Your task to perform on an android device: Go to eBay Image 0: 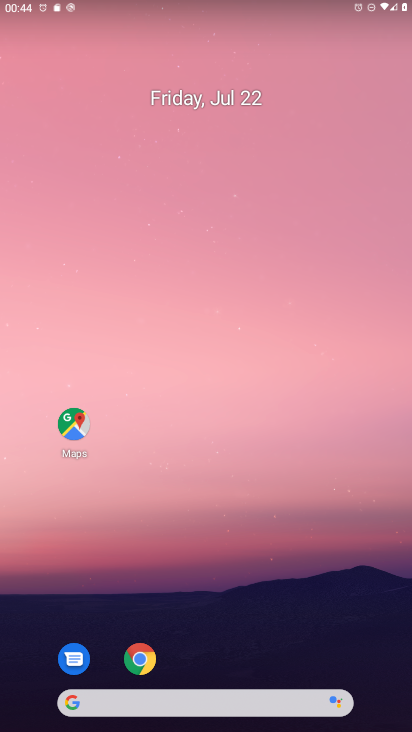
Step 0: click (140, 659)
Your task to perform on an android device: Go to eBay Image 1: 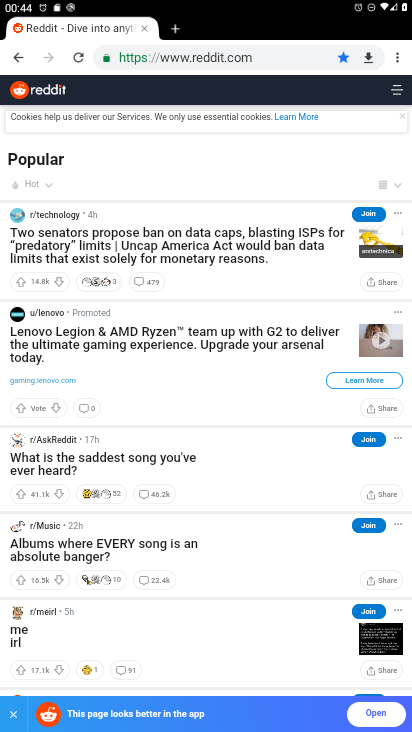
Step 1: click (287, 58)
Your task to perform on an android device: Go to eBay Image 2: 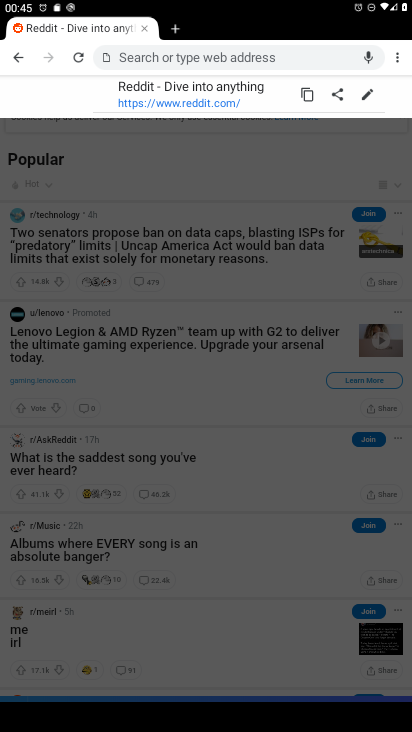
Step 2: type "eBay"
Your task to perform on an android device: Go to eBay Image 3: 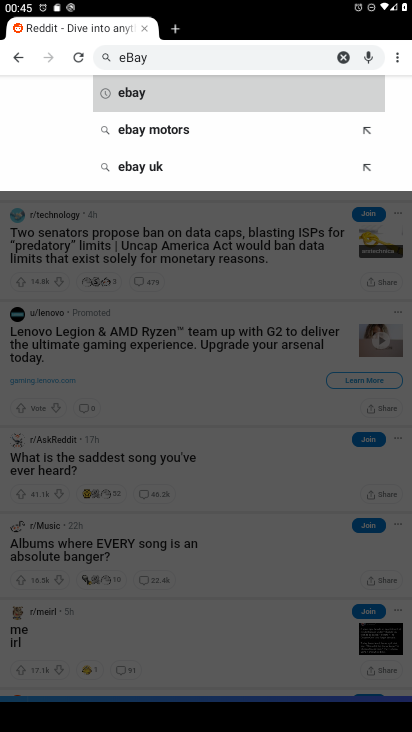
Step 3: click (106, 92)
Your task to perform on an android device: Go to eBay Image 4: 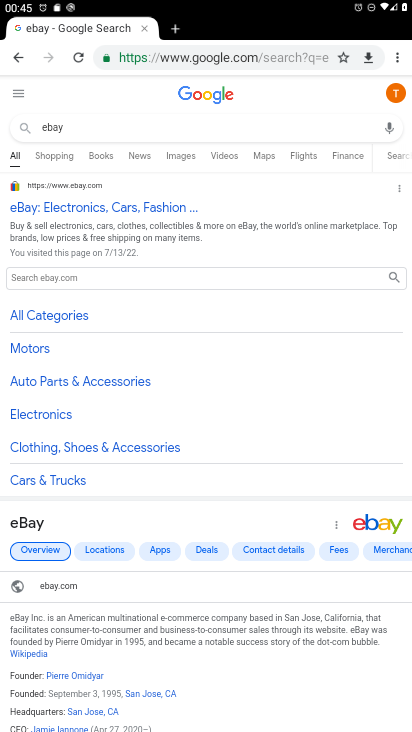
Step 4: click (108, 213)
Your task to perform on an android device: Go to eBay Image 5: 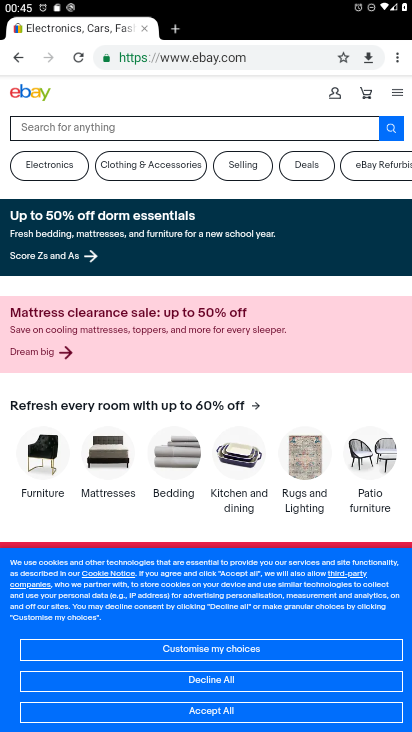
Step 5: task complete